Your task to perform on an android device: change the clock display to analog Image 0: 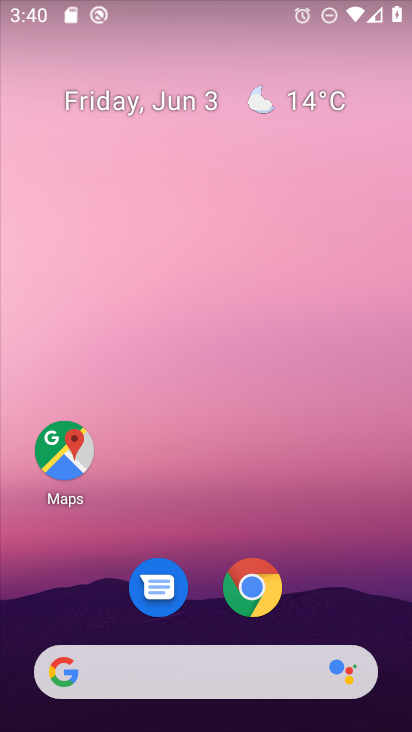
Step 0: drag from (232, 596) to (218, 128)
Your task to perform on an android device: change the clock display to analog Image 1: 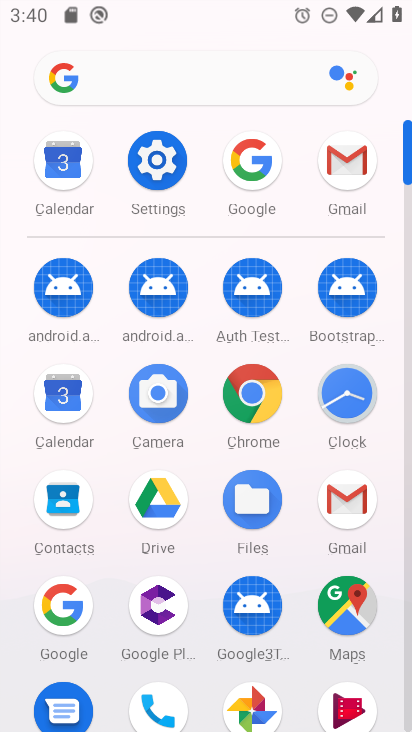
Step 1: click (347, 396)
Your task to perform on an android device: change the clock display to analog Image 2: 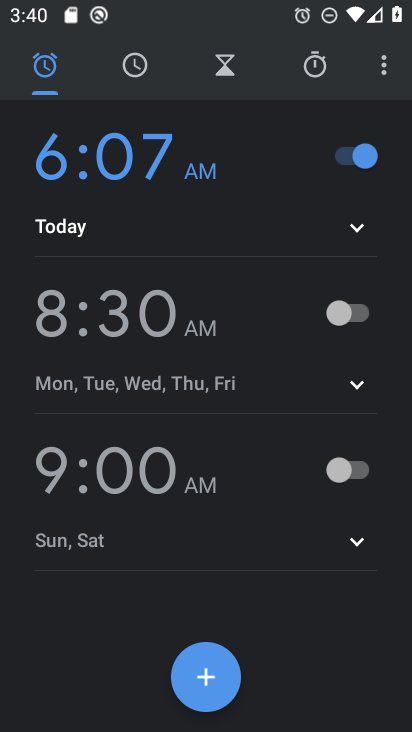
Step 2: click (387, 71)
Your task to perform on an android device: change the clock display to analog Image 3: 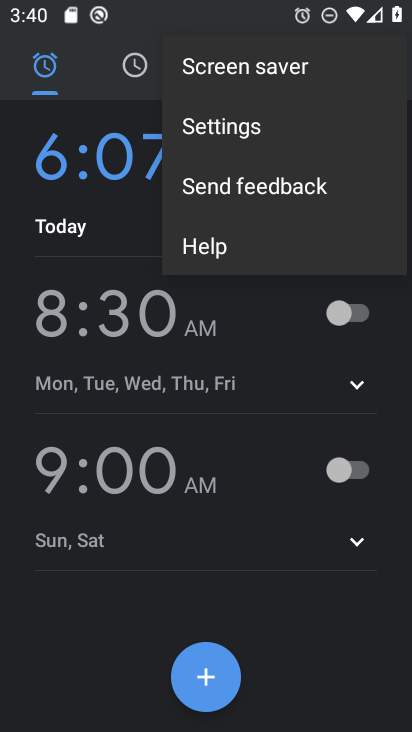
Step 3: click (241, 127)
Your task to perform on an android device: change the clock display to analog Image 4: 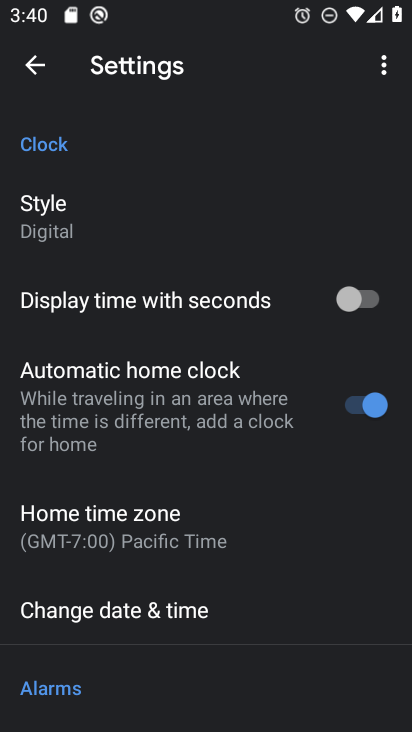
Step 4: click (52, 218)
Your task to perform on an android device: change the clock display to analog Image 5: 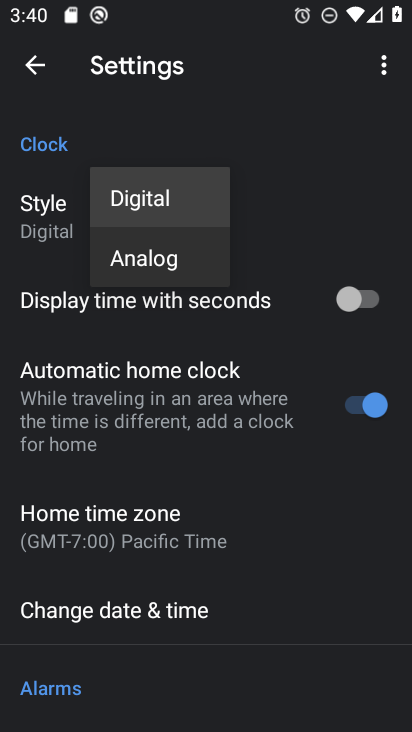
Step 5: click (166, 259)
Your task to perform on an android device: change the clock display to analog Image 6: 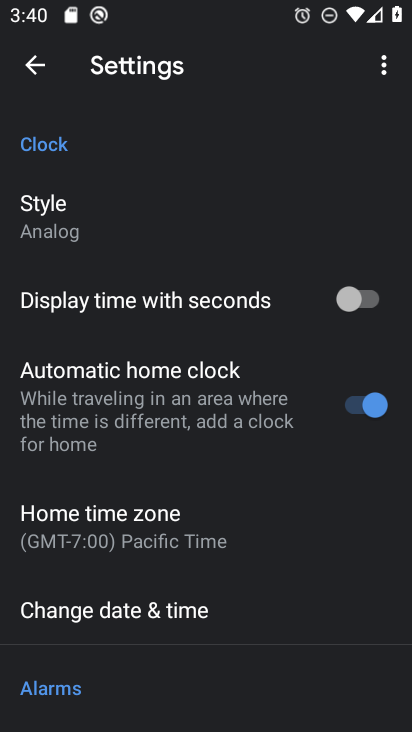
Step 6: task complete